Your task to perform on an android device: Search for "razer naga" on costco.com, select the first entry, and add it to the cart. Image 0: 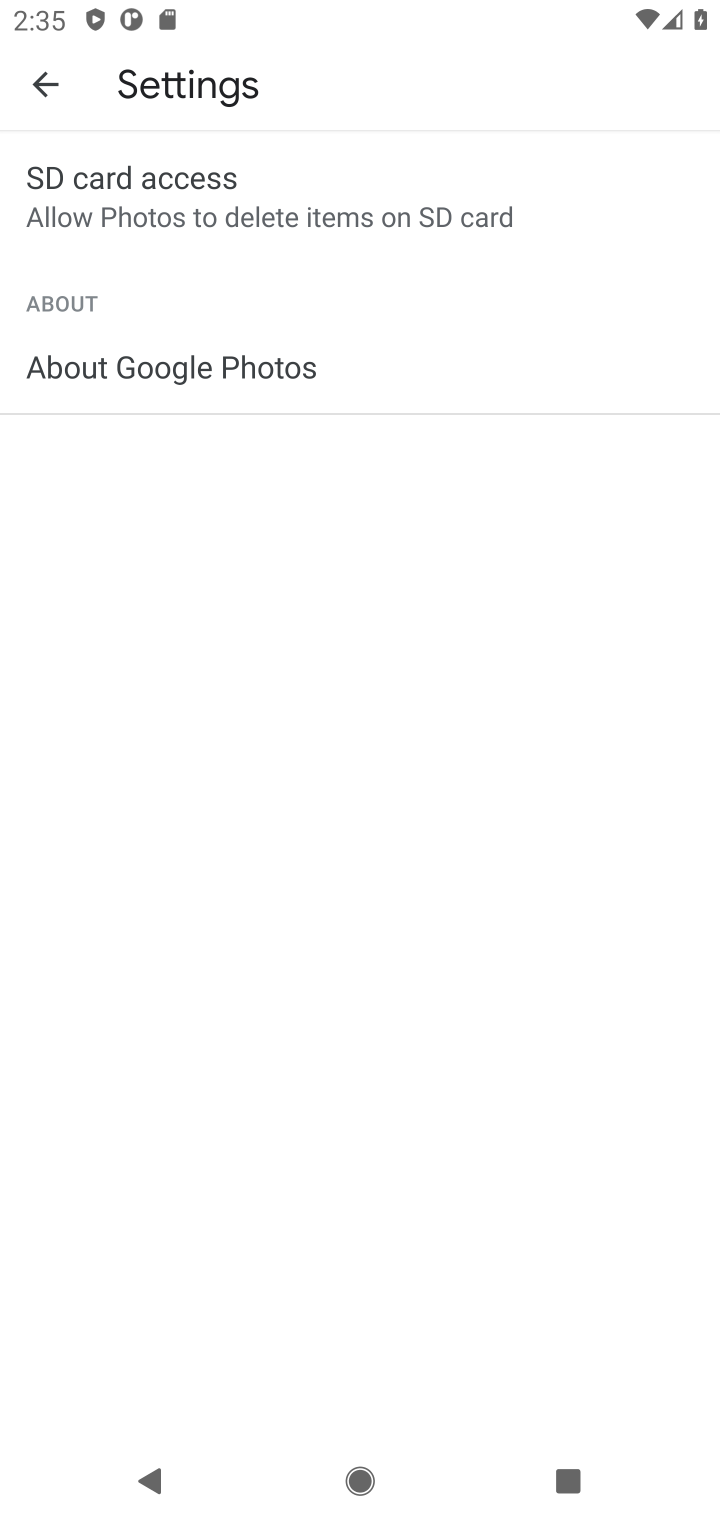
Step 0: press home button
Your task to perform on an android device: Search for "razer naga" on costco.com, select the first entry, and add it to the cart. Image 1: 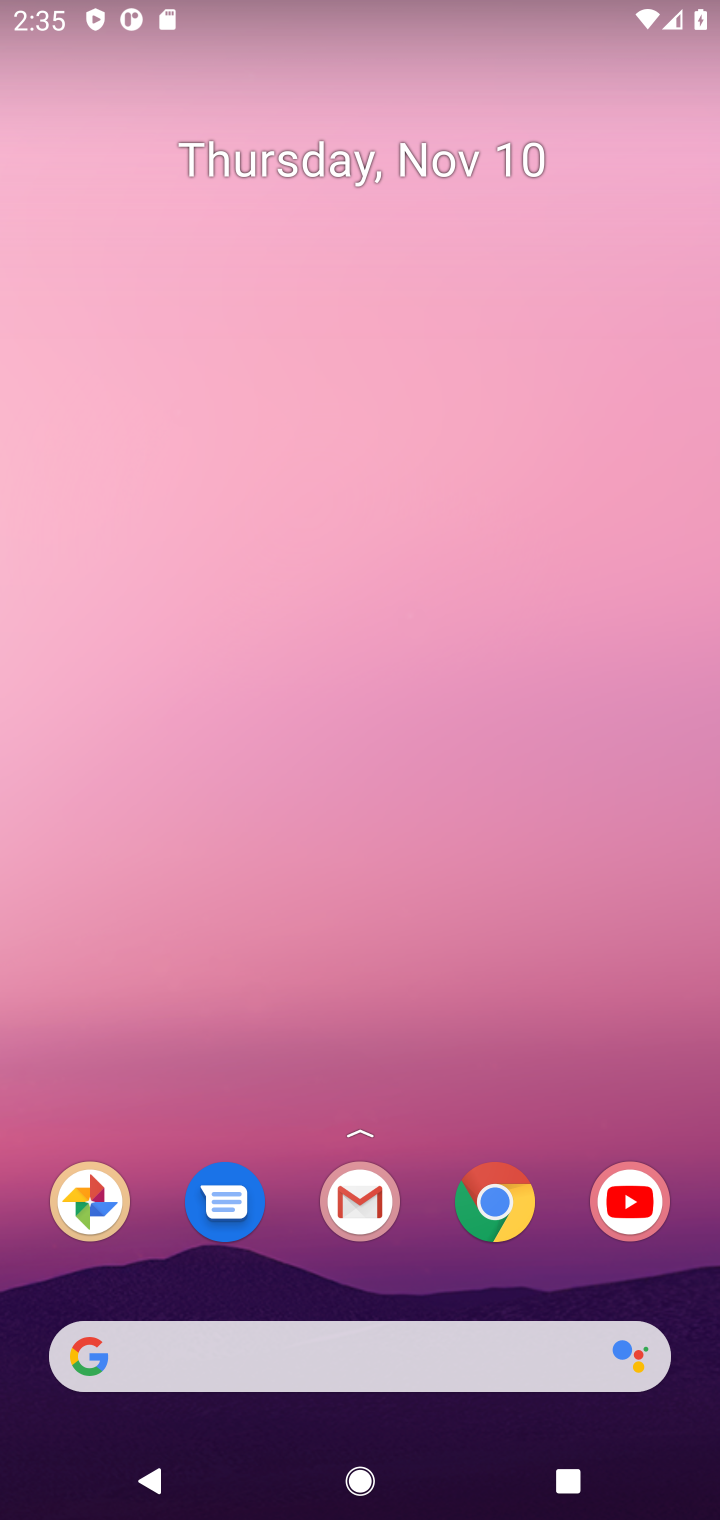
Step 1: click (495, 1229)
Your task to perform on an android device: Search for "razer naga" on costco.com, select the first entry, and add it to the cart. Image 2: 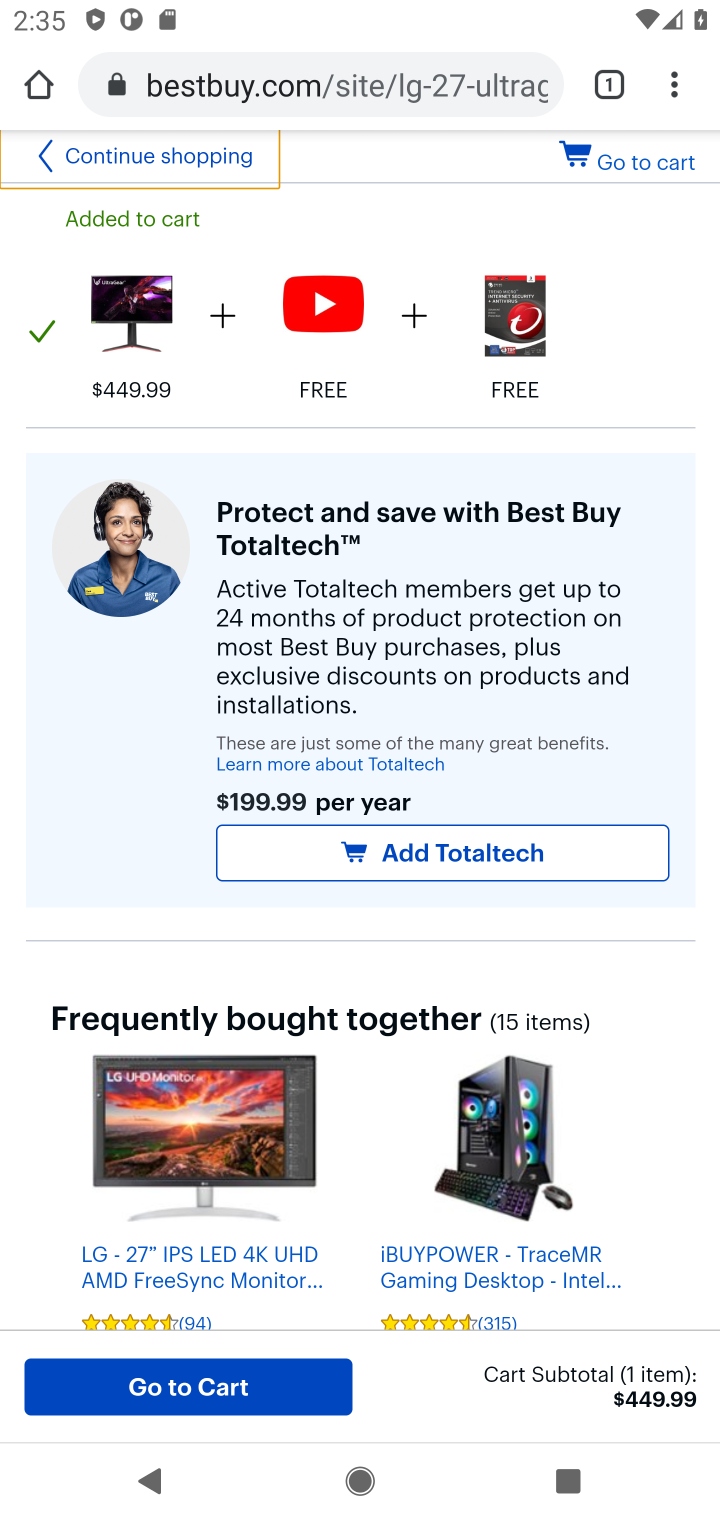
Step 2: click (438, 78)
Your task to perform on an android device: Search for "razer naga" on costco.com, select the first entry, and add it to the cart. Image 3: 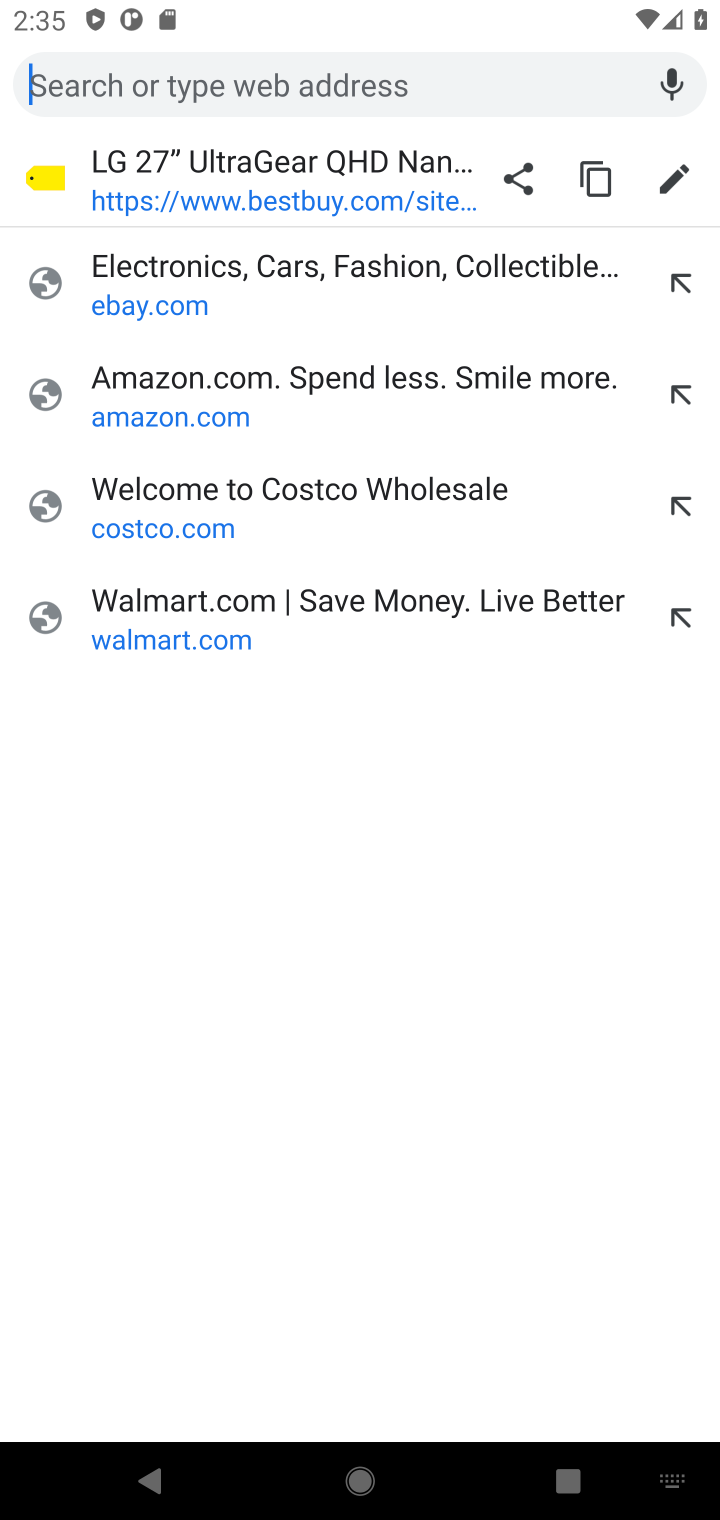
Step 3: press enter
Your task to perform on an android device: Search for "razer naga" on costco.com, select the first entry, and add it to the cart. Image 4: 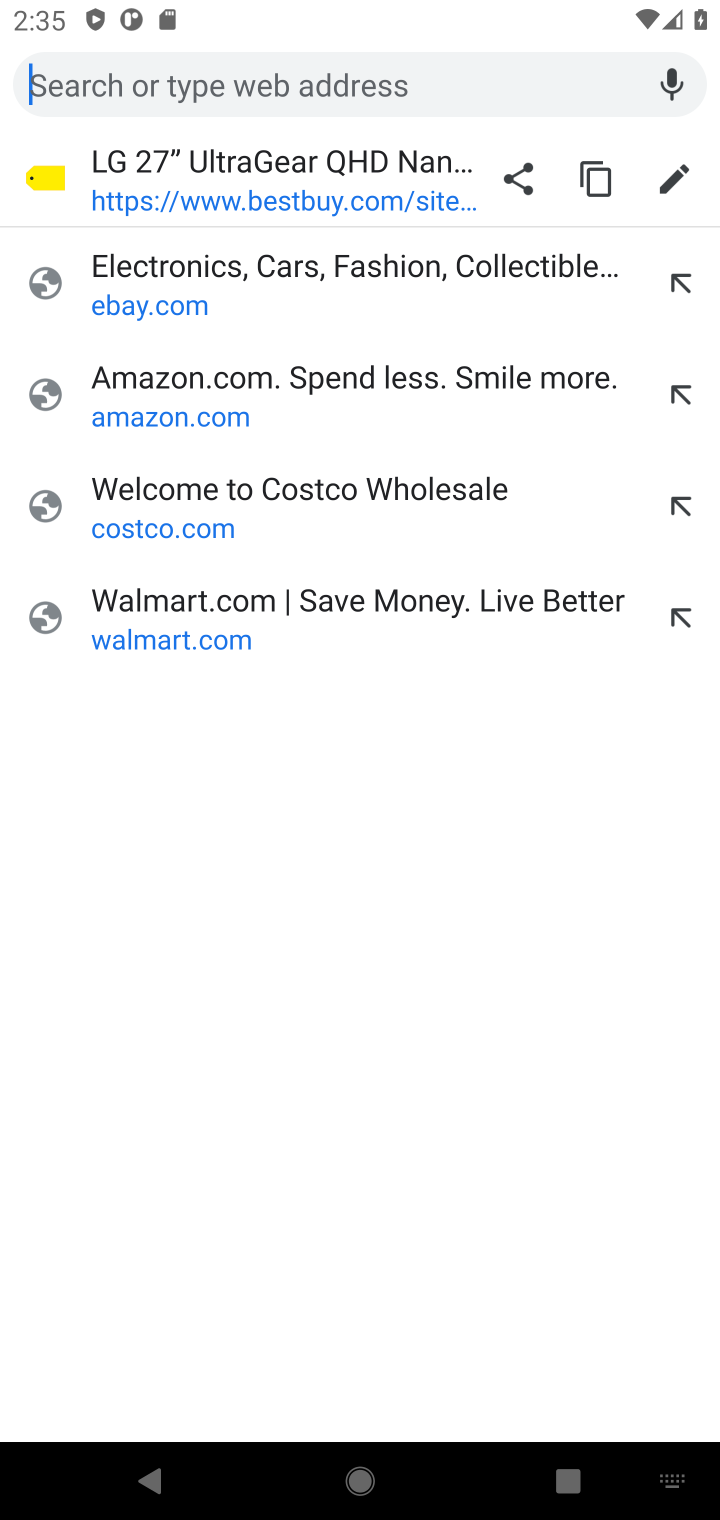
Step 4: type "costco.com"
Your task to perform on an android device: Search for "razer naga" on costco.com, select the first entry, and add it to the cart. Image 5: 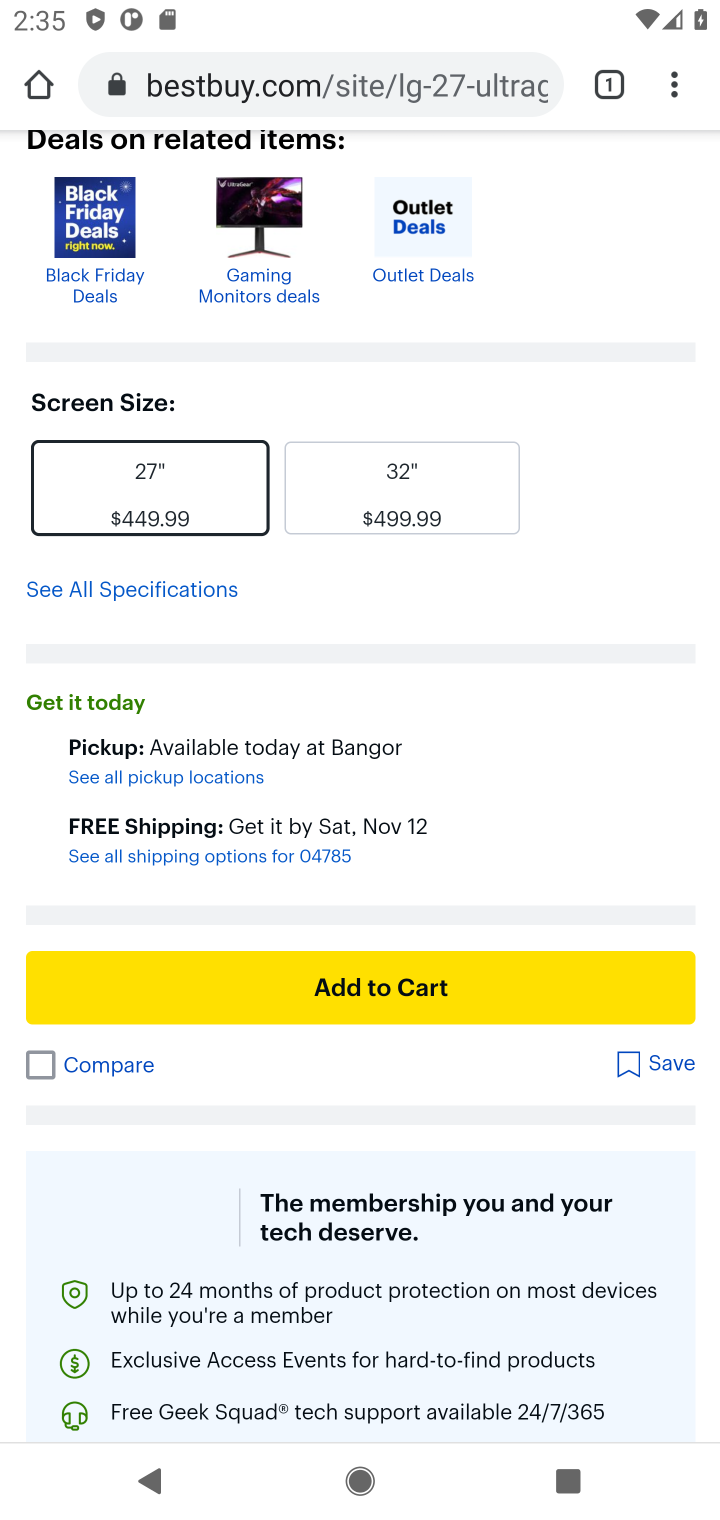
Step 5: drag from (568, 452) to (505, 968)
Your task to perform on an android device: Search for "razer naga" on costco.com, select the first entry, and add it to the cart. Image 6: 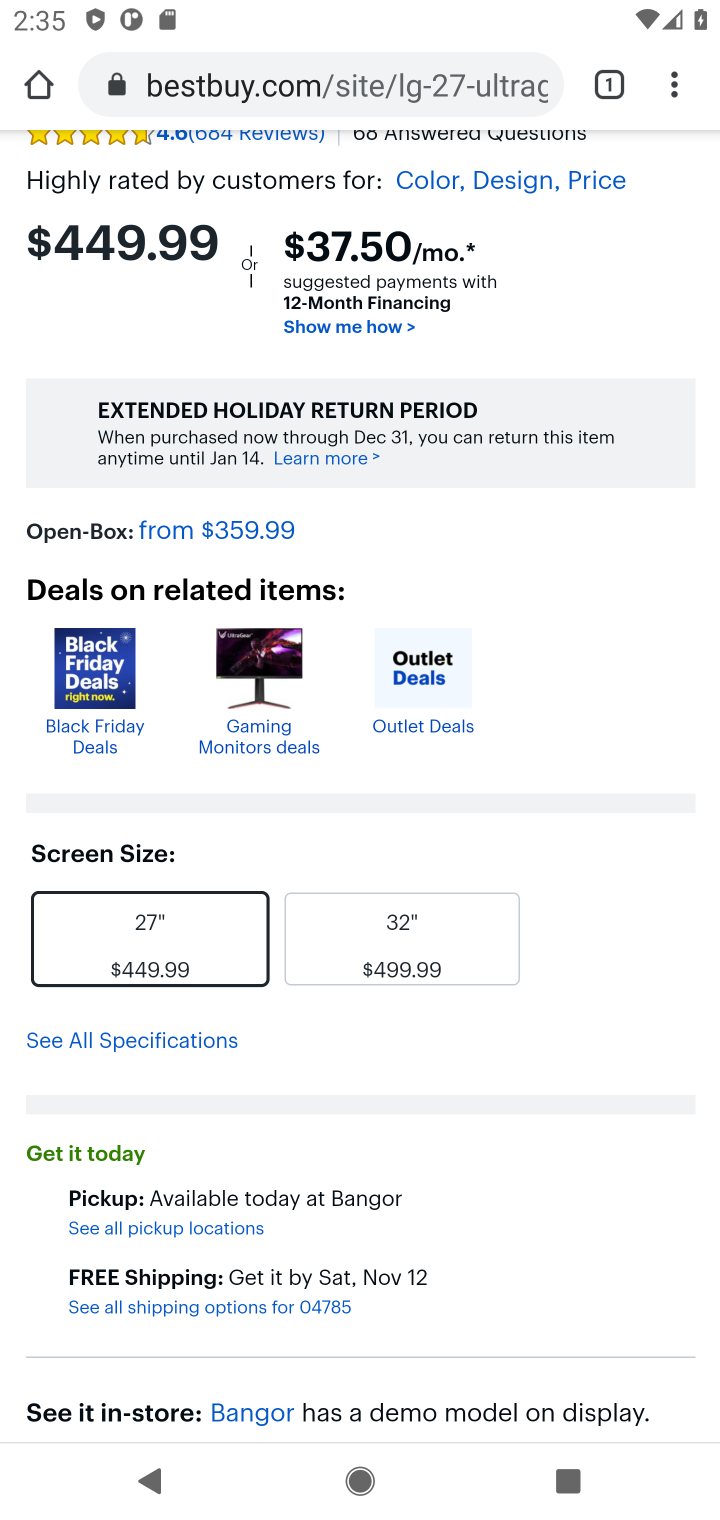
Step 6: drag from (539, 829) to (509, 980)
Your task to perform on an android device: Search for "razer naga" on costco.com, select the first entry, and add it to the cart. Image 7: 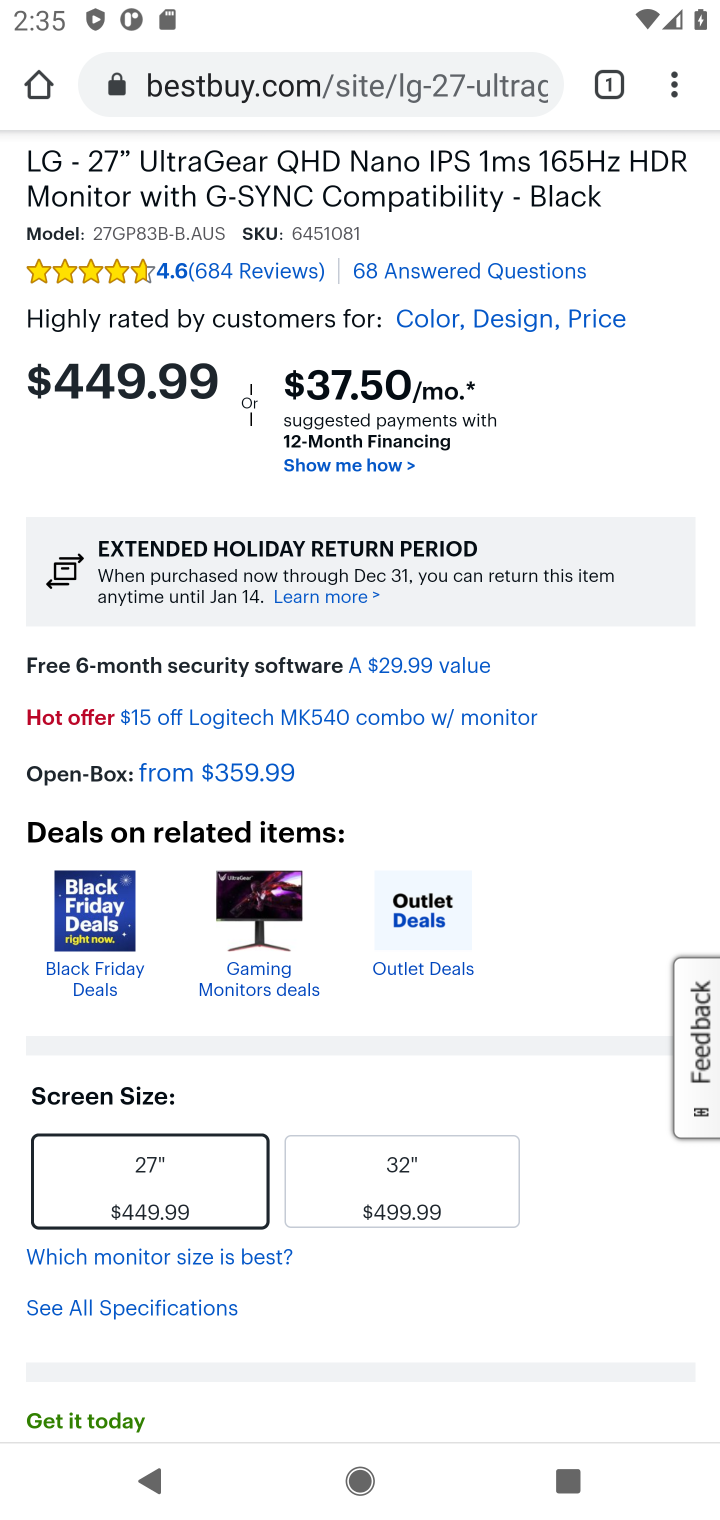
Step 7: click (360, 87)
Your task to perform on an android device: Search for "razer naga" on costco.com, select the first entry, and add it to the cart. Image 8: 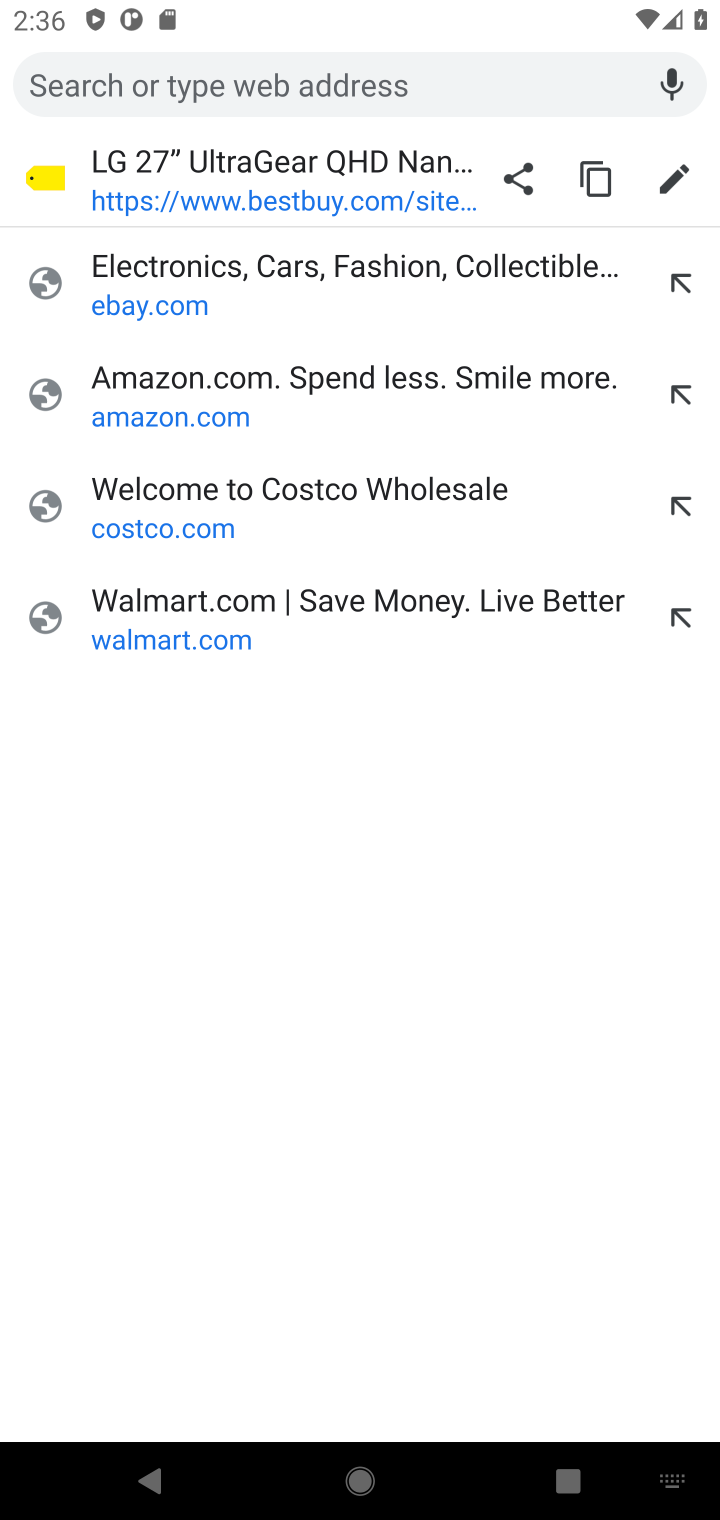
Step 8: click (282, 497)
Your task to perform on an android device: Search for "razer naga" on costco.com, select the first entry, and add it to the cart. Image 9: 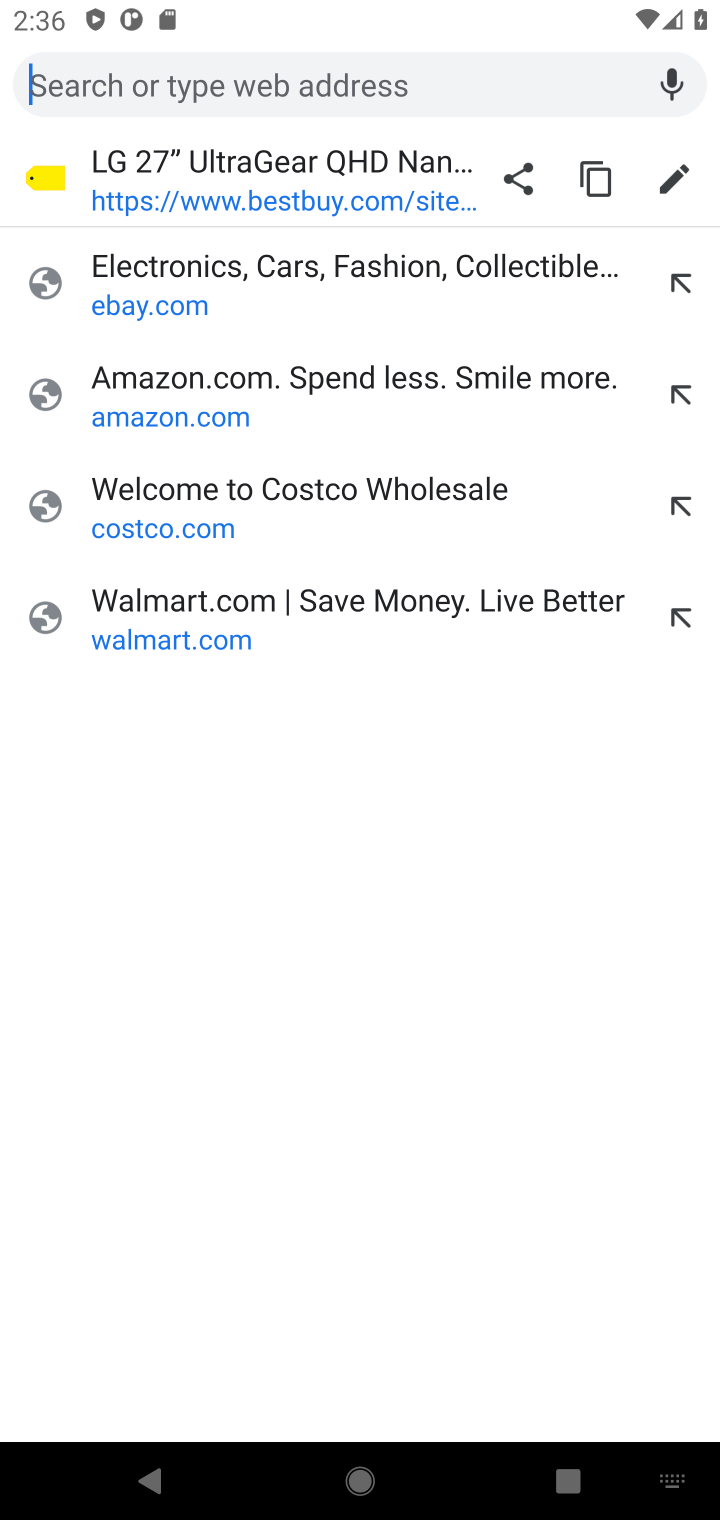
Step 9: click (290, 491)
Your task to perform on an android device: Search for "razer naga" on costco.com, select the first entry, and add it to the cart. Image 10: 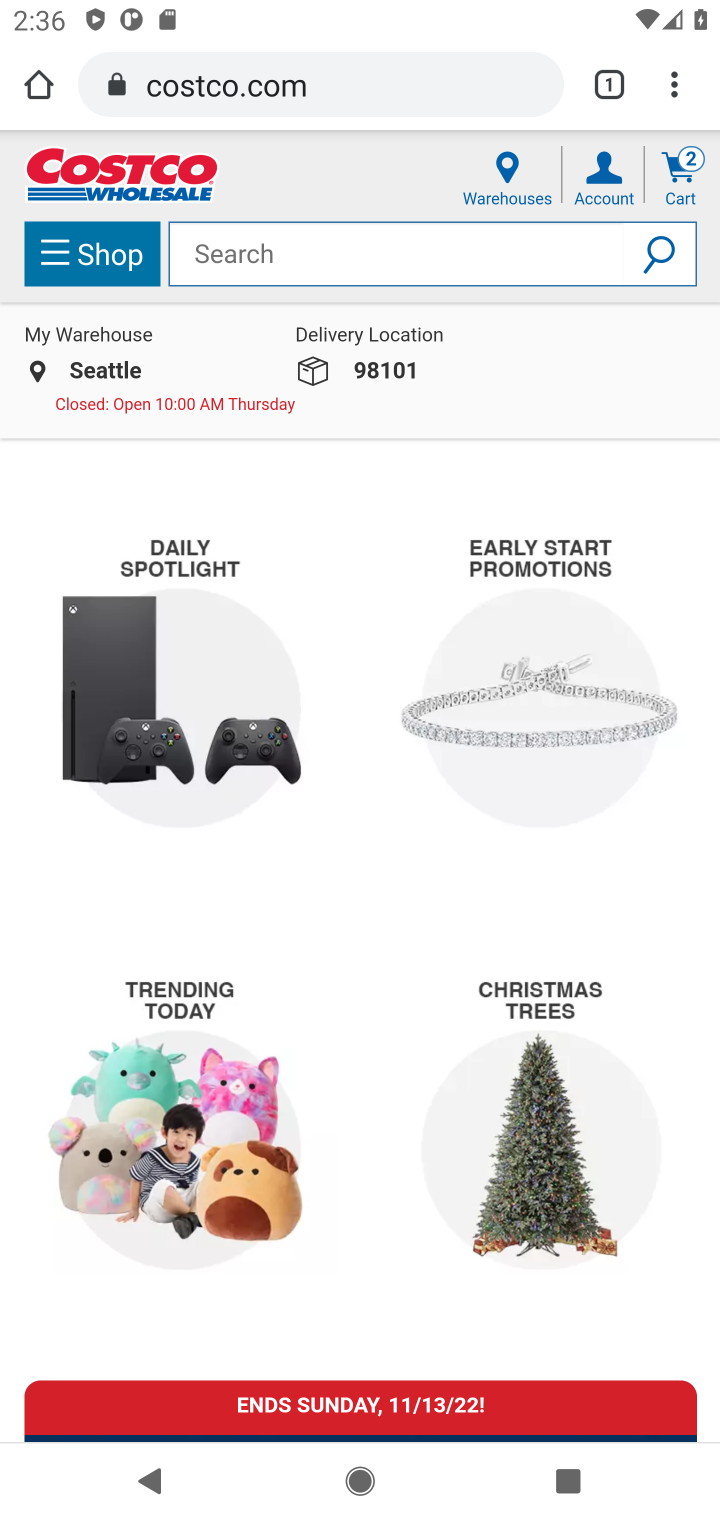
Step 10: click (439, 275)
Your task to perform on an android device: Search for "razer naga" on costco.com, select the first entry, and add it to the cart. Image 11: 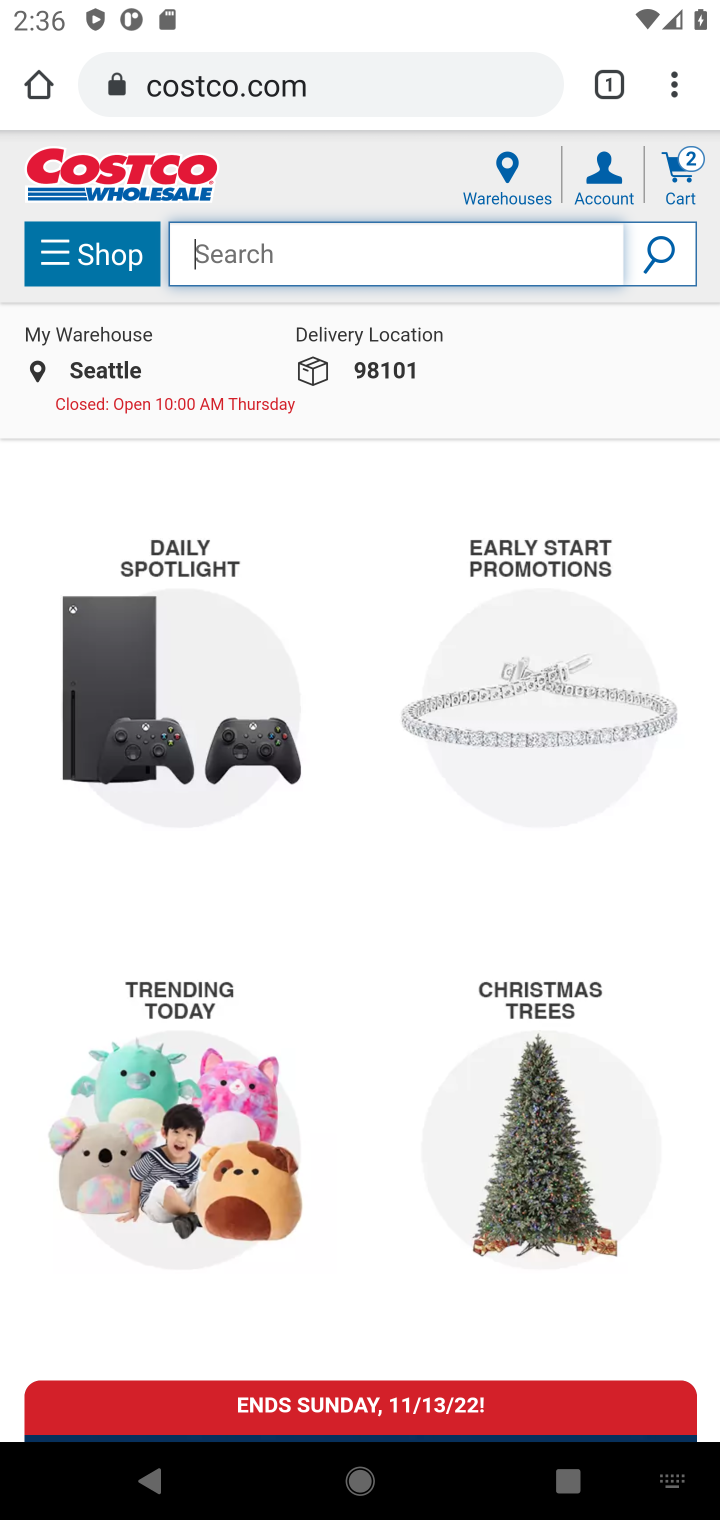
Step 11: type "razer naga"
Your task to perform on an android device: Search for "razer naga" on costco.com, select the first entry, and add it to the cart. Image 12: 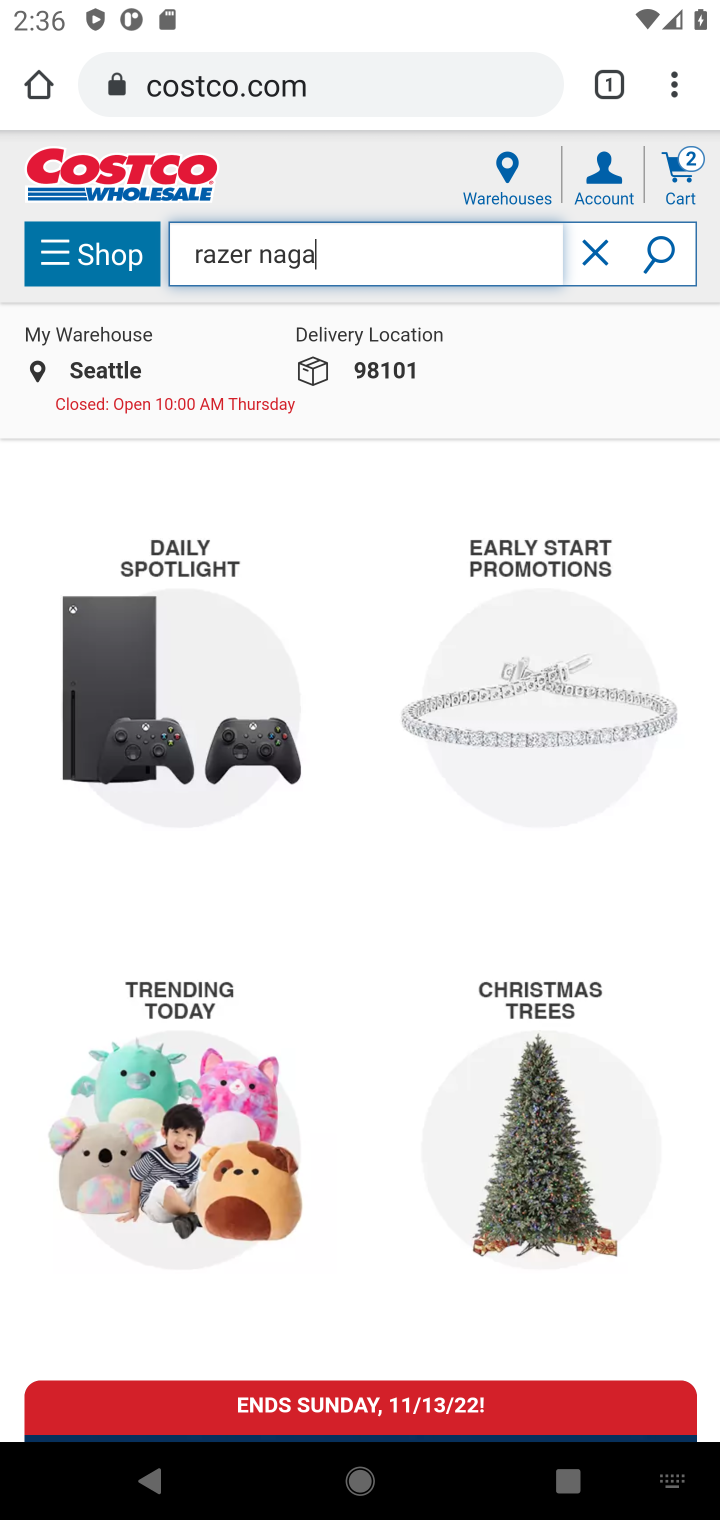
Step 12: press enter
Your task to perform on an android device: Search for "razer naga" on costco.com, select the first entry, and add it to the cart. Image 13: 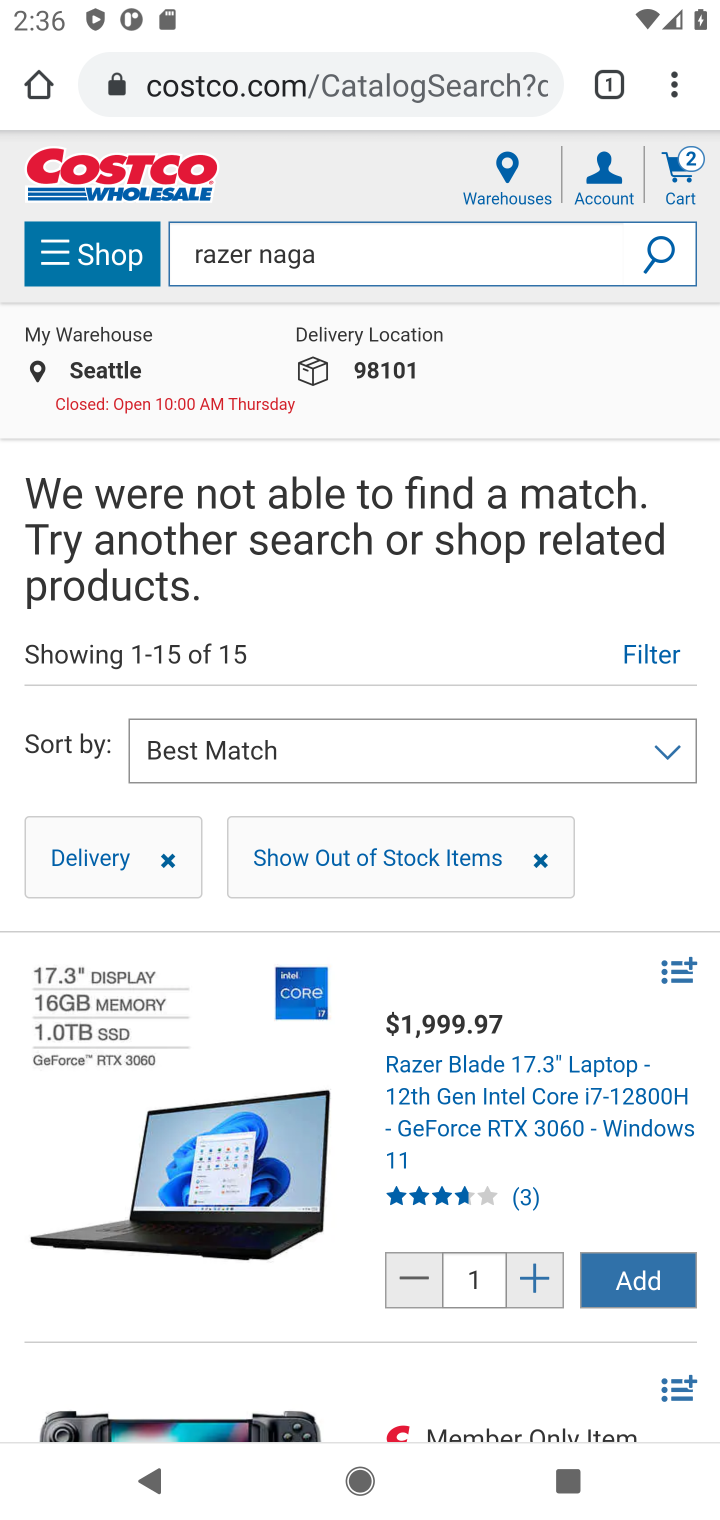
Step 13: task complete